Your task to perform on an android device: toggle data saver in the chrome app Image 0: 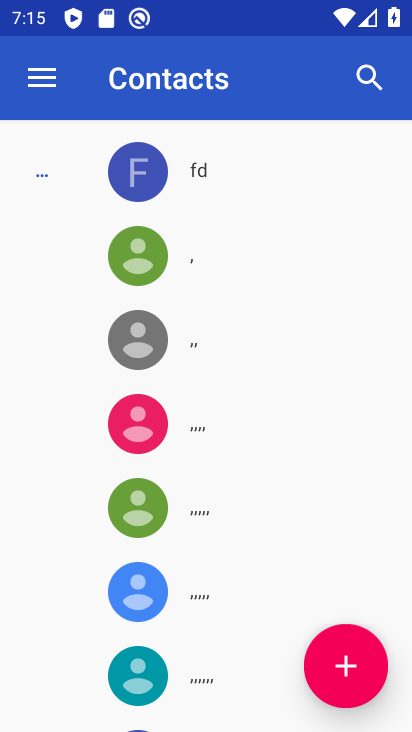
Step 0: press home button
Your task to perform on an android device: toggle data saver in the chrome app Image 1: 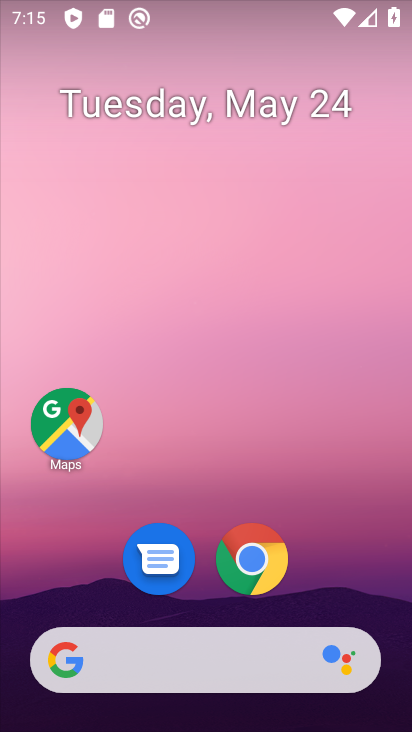
Step 1: drag from (305, 597) to (291, 133)
Your task to perform on an android device: toggle data saver in the chrome app Image 2: 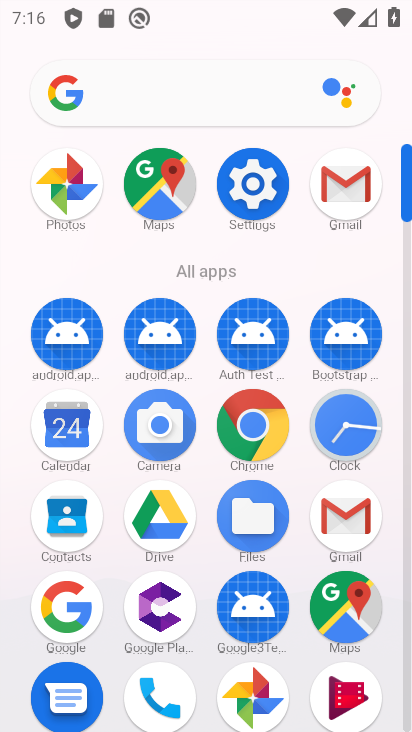
Step 2: click (246, 692)
Your task to perform on an android device: toggle data saver in the chrome app Image 3: 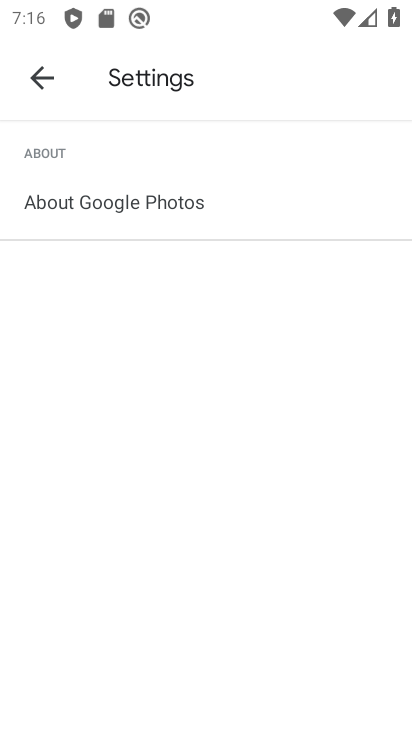
Step 3: click (55, 80)
Your task to perform on an android device: toggle data saver in the chrome app Image 4: 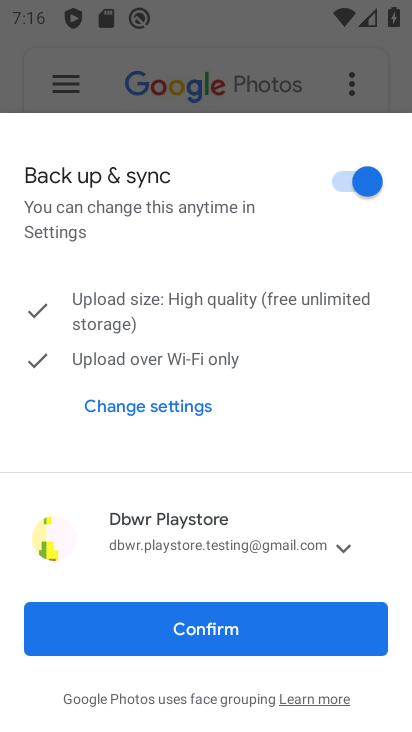
Step 4: click (195, 596)
Your task to perform on an android device: toggle data saver in the chrome app Image 5: 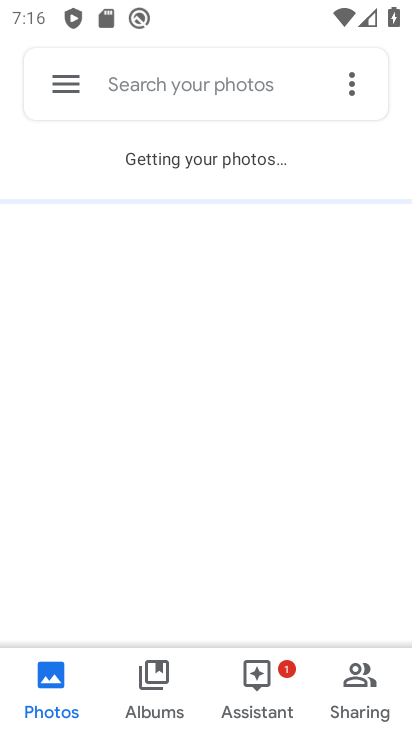
Step 5: click (151, 697)
Your task to perform on an android device: toggle data saver in the chrome app Image 6: 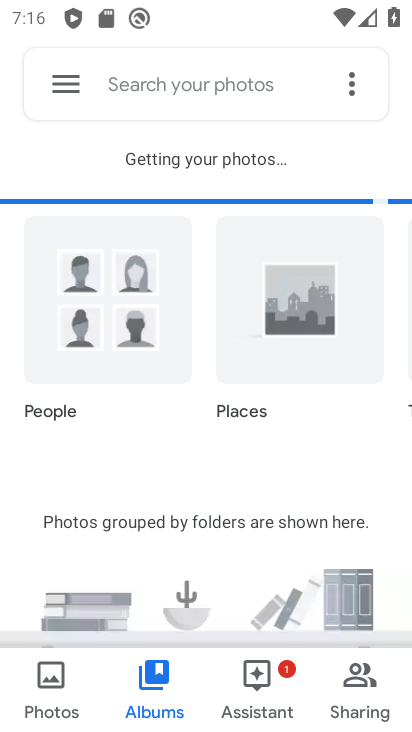
Step 6: click (265, 706)
Your task to perform on an android device: toggle data saver in the chrome app Image 7: 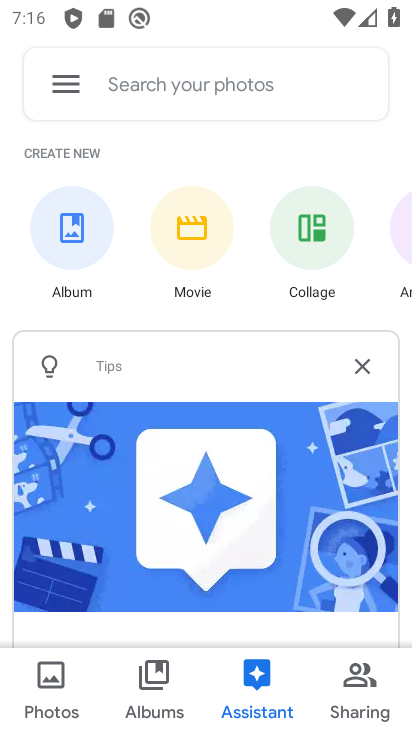
Step 7: click (366, 729)
Your task to perform on an android device: toggle data saver in the chrome app Image 8: 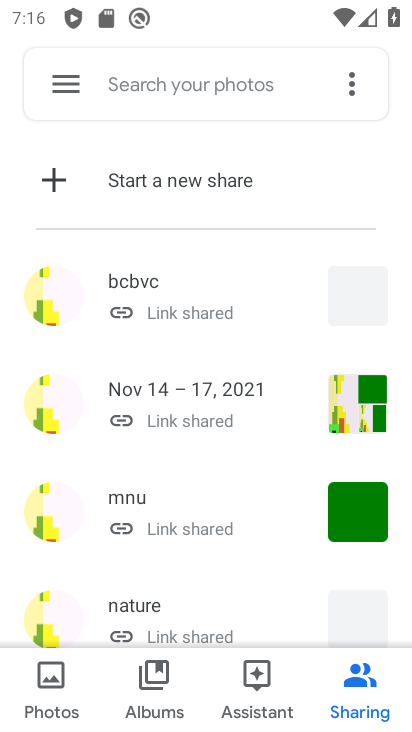
Step 8: drag from (223, 611) to (294, 76)
Your task to perform on an android device: toggle data saver in the chrome app Image 9: 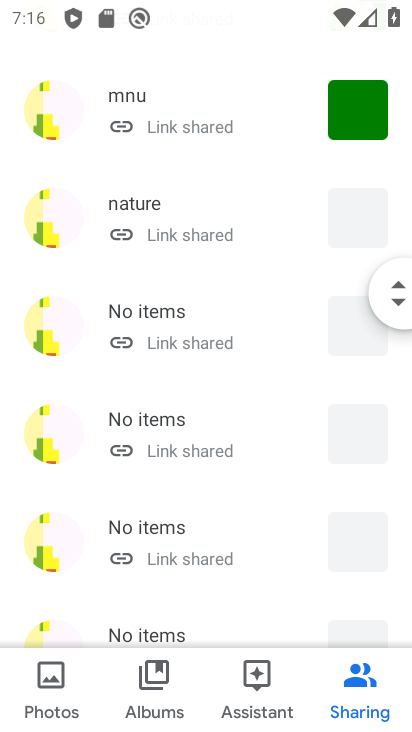
Step 9: click (227, 692)
Your task to perform on an android device: toggle data saver in the chrome app Image 10: 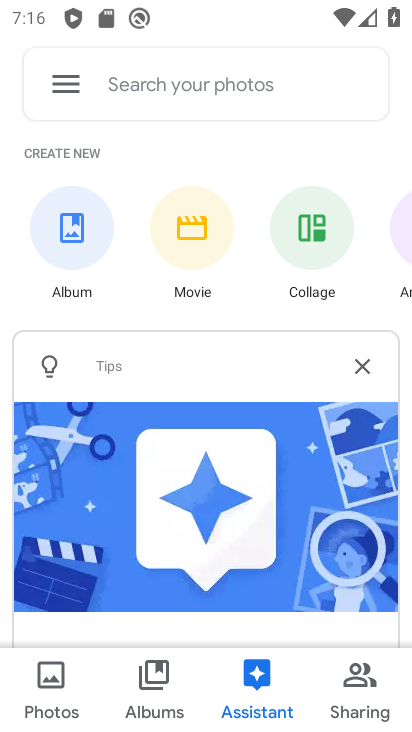
Step 10: task complete